Your task to perform on an android device: Open internet settings Image 0: 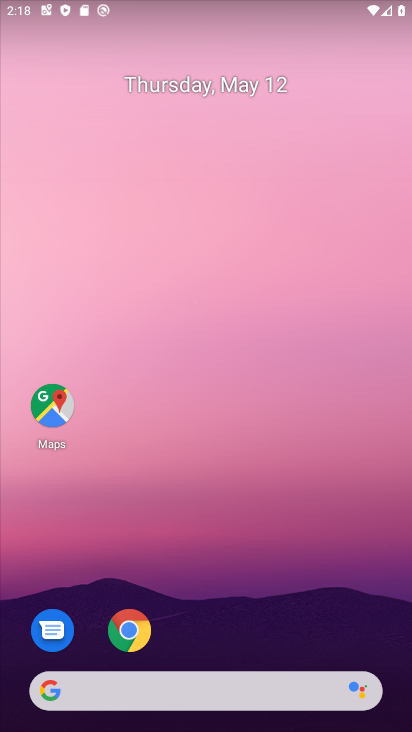
Step 0: drag from (279, 604) to (176, 32)
Your task to perform on an android device: Open internet settings Image 1: 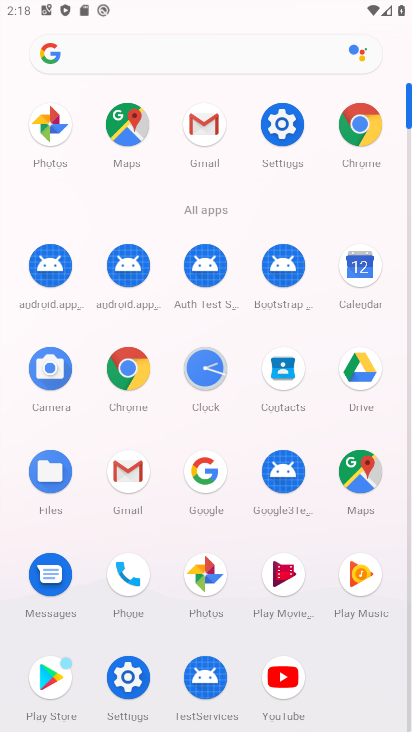
Step 1: click (284, 122)
Your task to perform on an android device: Open internet settings Image 2: 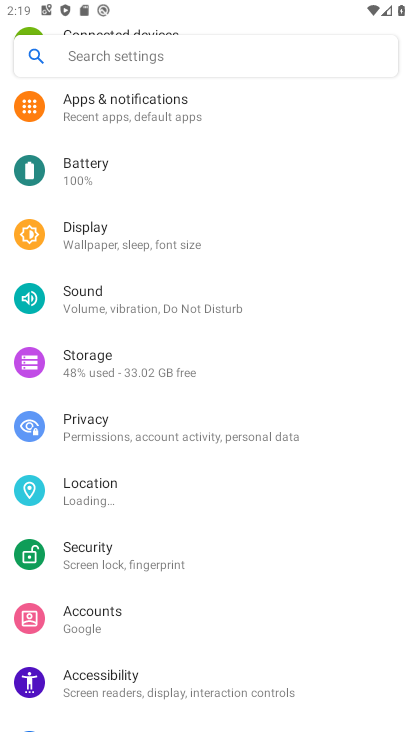
Step 2: drag from (205, 203) to (178, 414)
Your task to perform on an android device: Open internet settings Image 3: 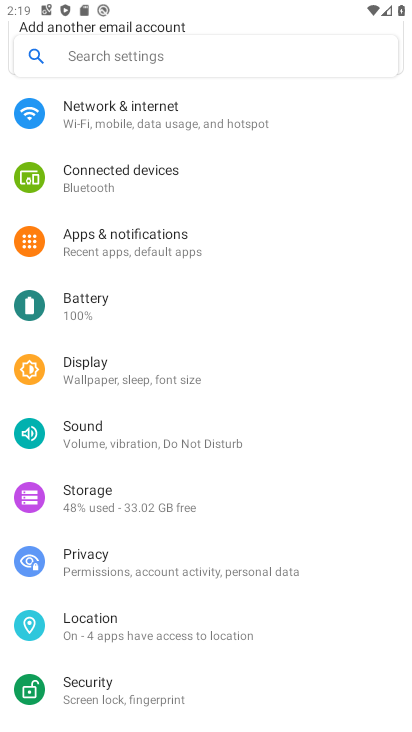
Step 3: drag from (220, 191) to (207, 353)
Your task to perform on an android device: Open internet settings Image 4: 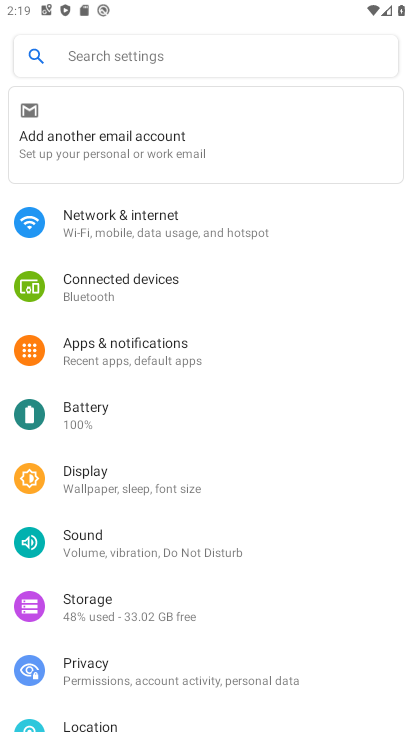
Step 4: click (168, 237)
Your task to perform on an android device: Open internet settings Image 5: 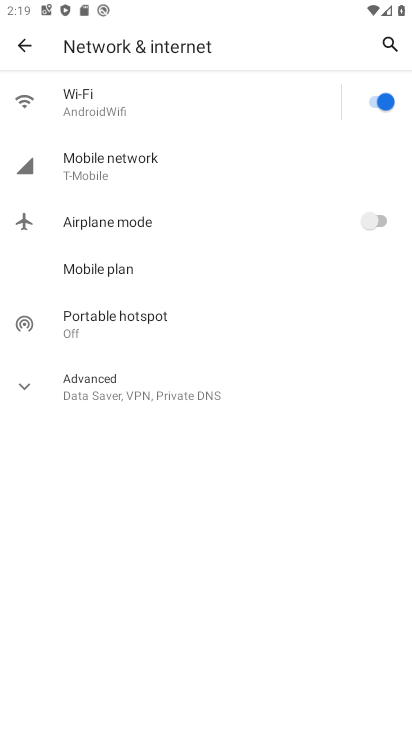
Step 5: task complete